Your task to perform on an android device: uninstall "Messenger Lite" Image 0: 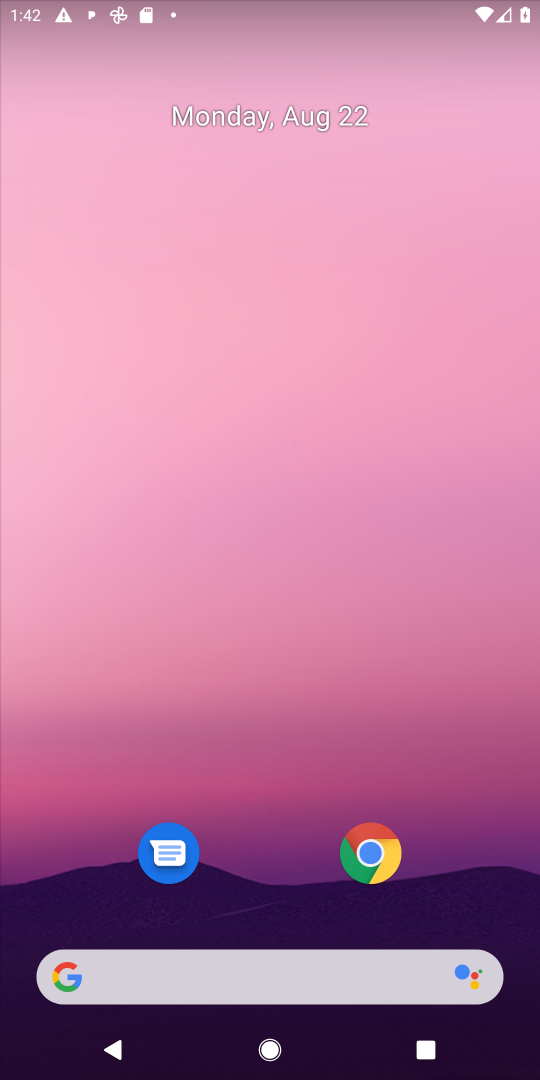
Step 0: drag from (220, 946) to (233, 286)
Your task to perform on an android device: uninstall "Messenger Lite" Image 1: 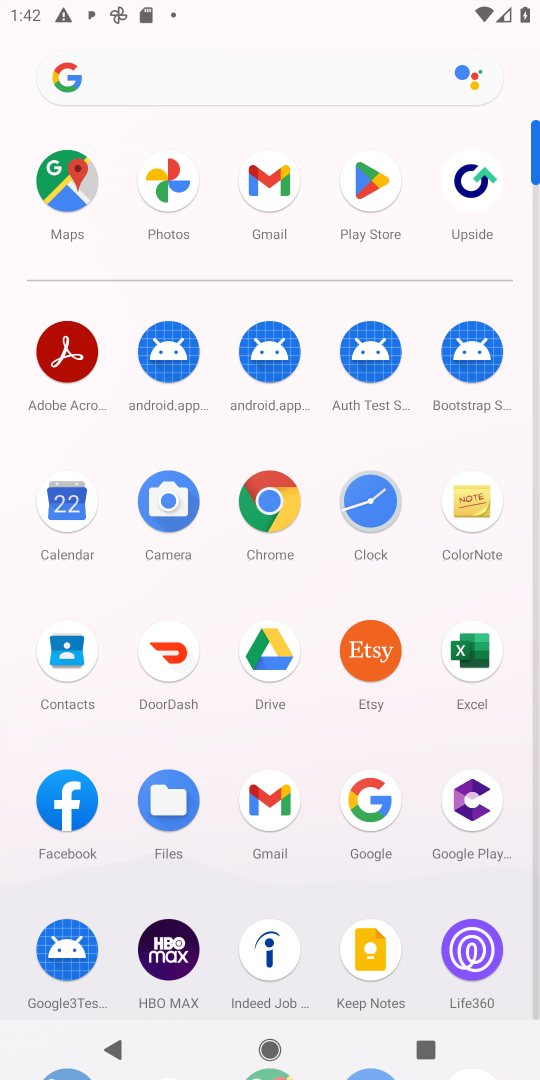
Step 1: click (357, 187)
Your task to perform on an android device: uninstall "Messenger Lite" Image 2: 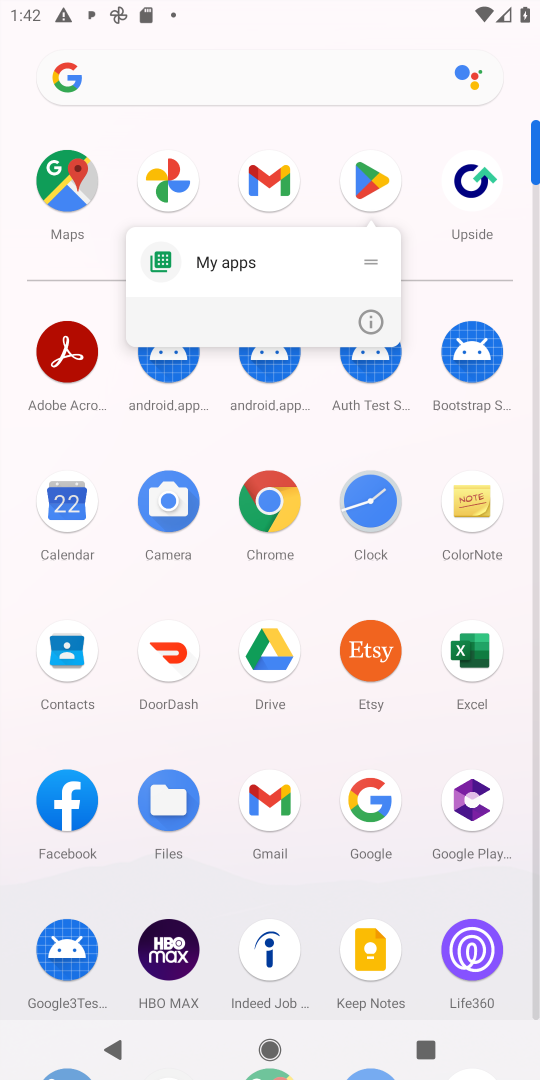
Step 2: click (360, 168)
Your task to perform on an android device: uninstall "Messenger Lite" Image 3: 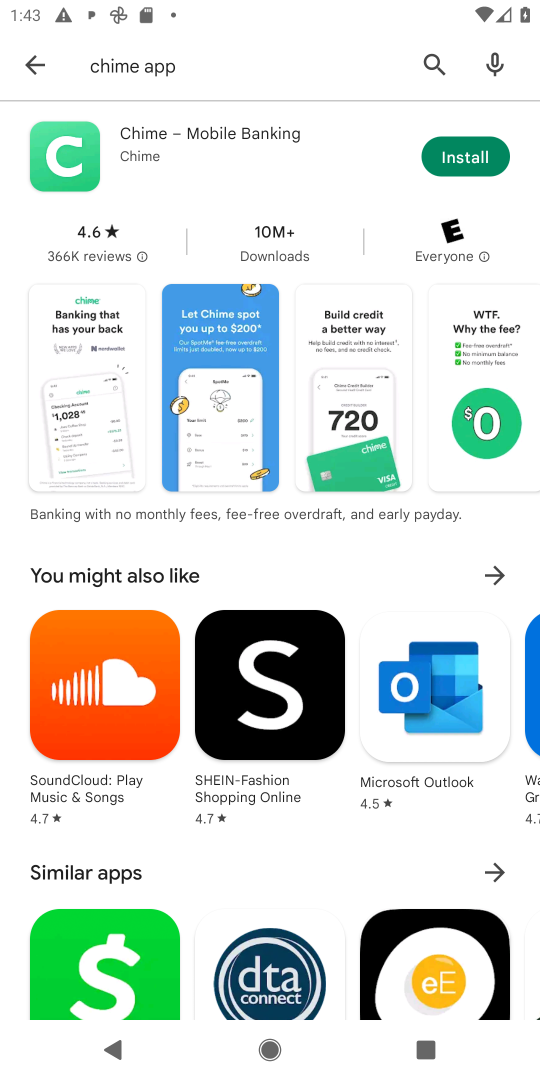
Step 3: click (36, 65)
Your task to perform on an android device: uninstall "Messenger Lite" Image 4: 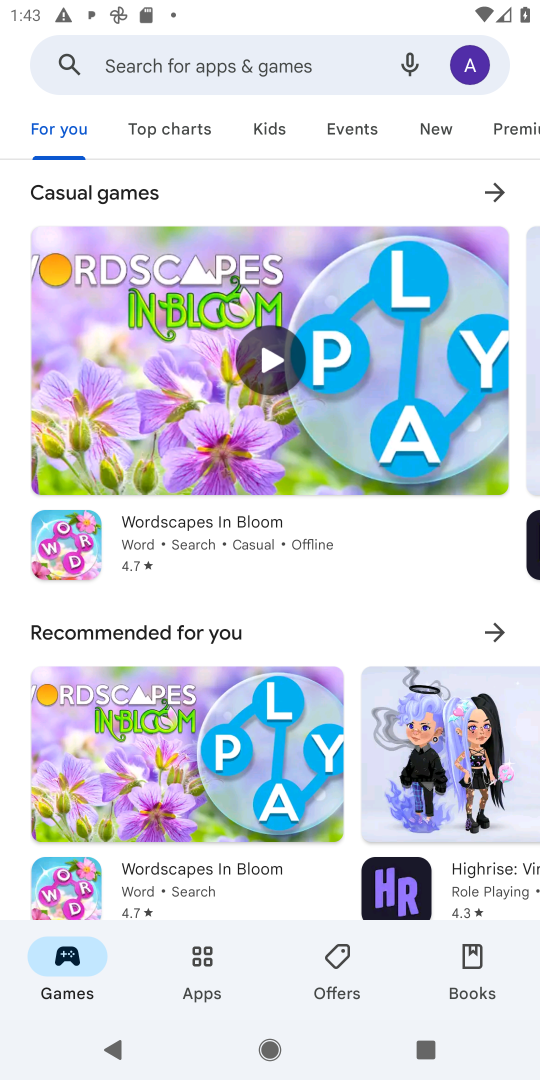
Step 4: click (159, 58)
Your task to perform on an android device: uninstall "Messenger Lite" Image 5: 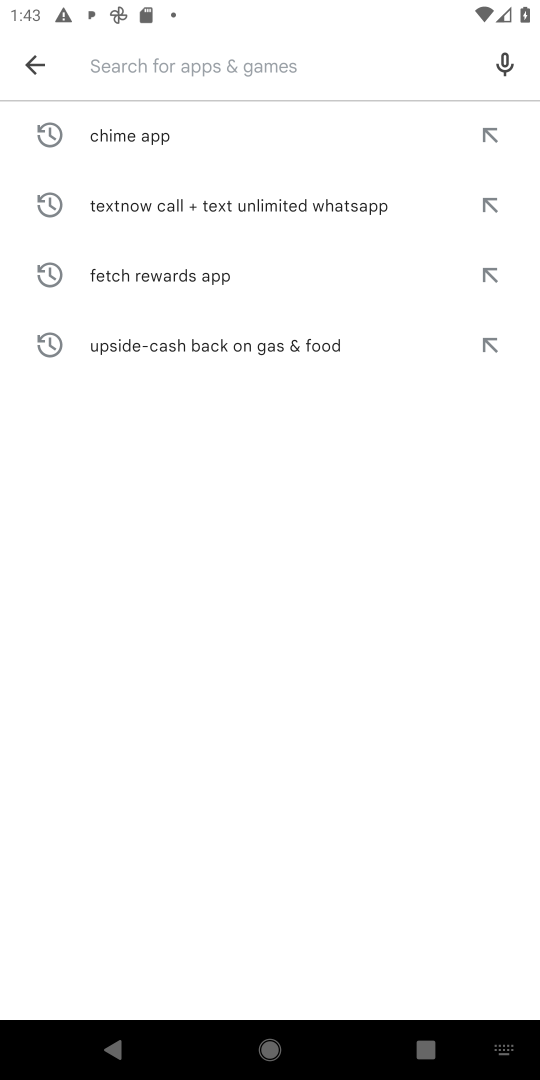
Step 5: type "Messenger Lite "
Your task to perform on an android device: uninstall "Messenger Lite" Image 6: 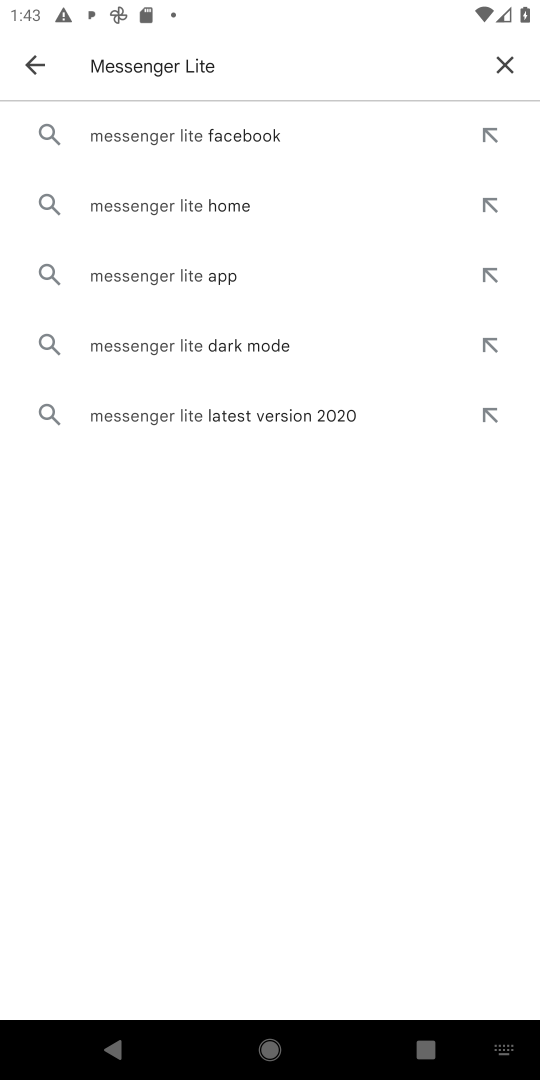
Step 6: click (214, 286)
Your task to perform on an android device: uninstall "Messenger Lite" Image 7: 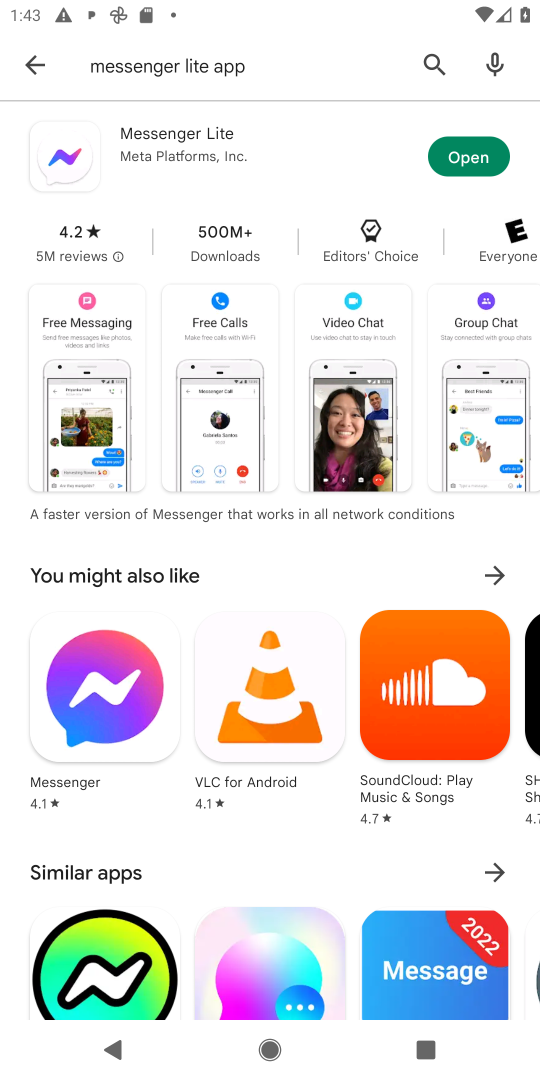
Step 7: click (226, 151)
Your task to perform on an android device: uninstall "Messenger Lite" Image 8: 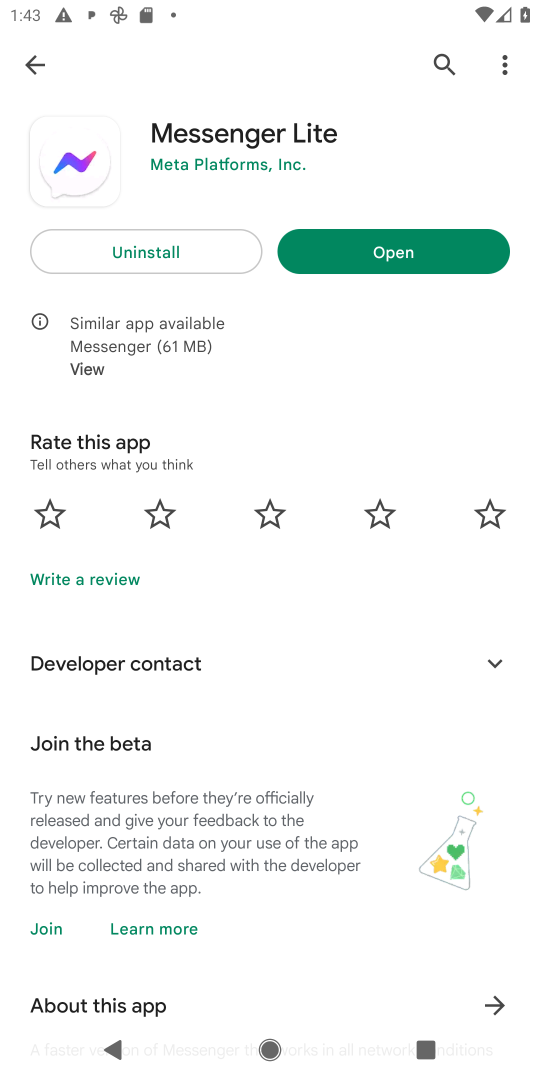
Step 8: click (114, 250)
Your task to perform on an android device: uninstall "Messenger Lite" Image 9: 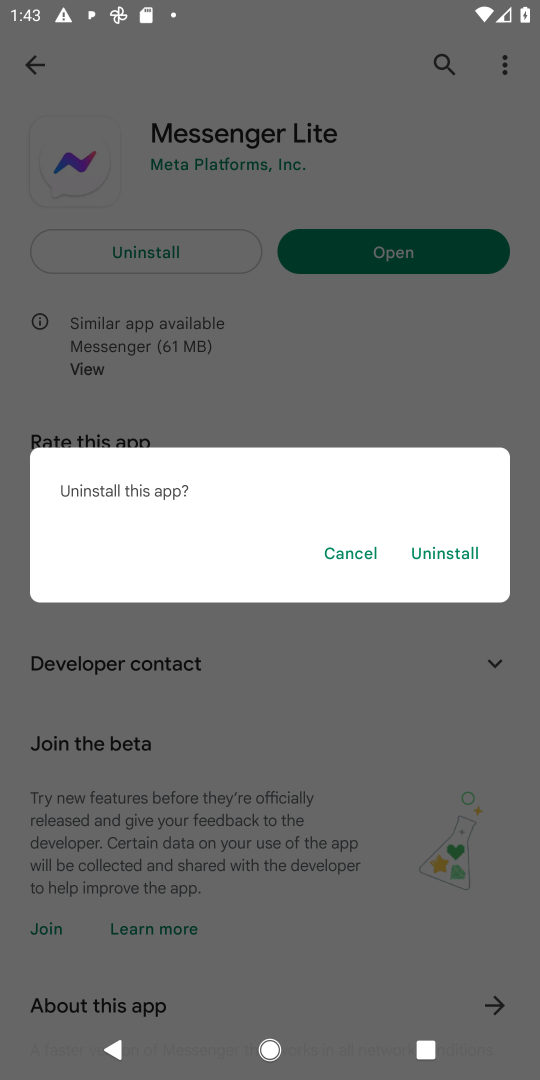
Step 9: click (435, 547)
Your task to perform on an android device: uninstall "Messenger Lite" Image 10: 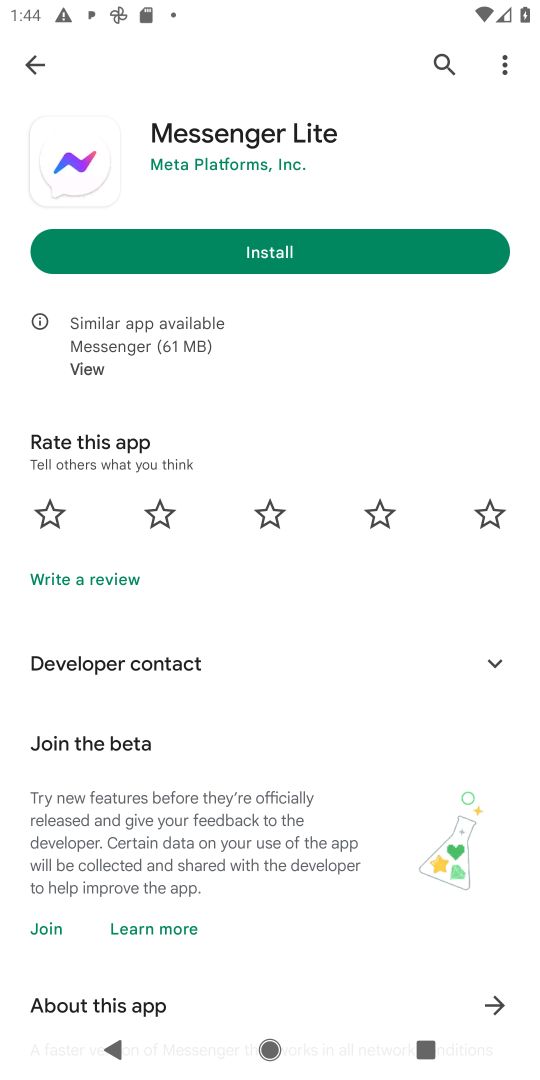
Step 10: task complete